Your task to perform on an android device: Go to network settings Image 0: 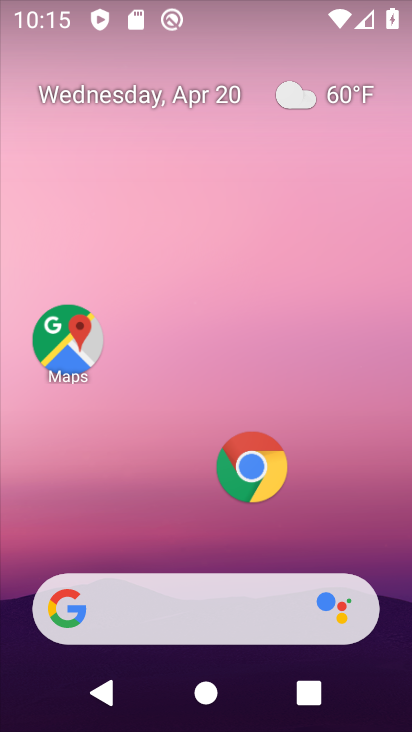
Step 0: drag from (346, 534) to (344, 38)
Your task to perform on an android device: Go to network settings Image 1: 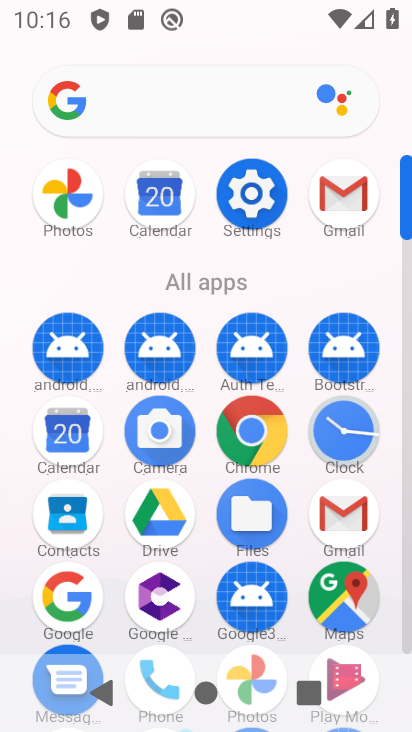
Step 1: click (253, 192)
Your task to perform on an android device: Go to network settings Image 2: 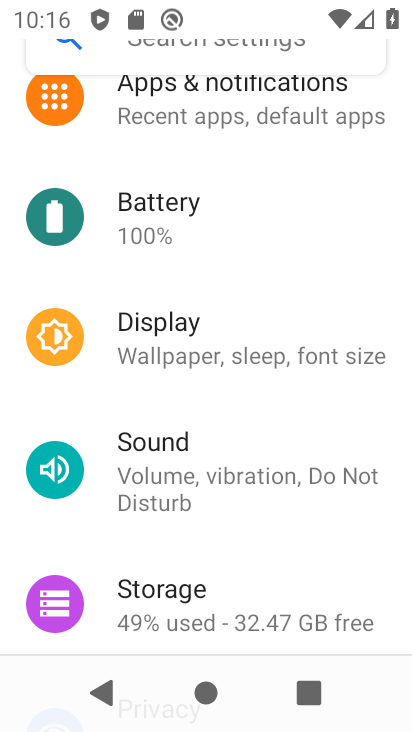
Step 2: drag from (153, 263) to (195, 357)
Your task to perform on an android device: Go to network settings Image 3: 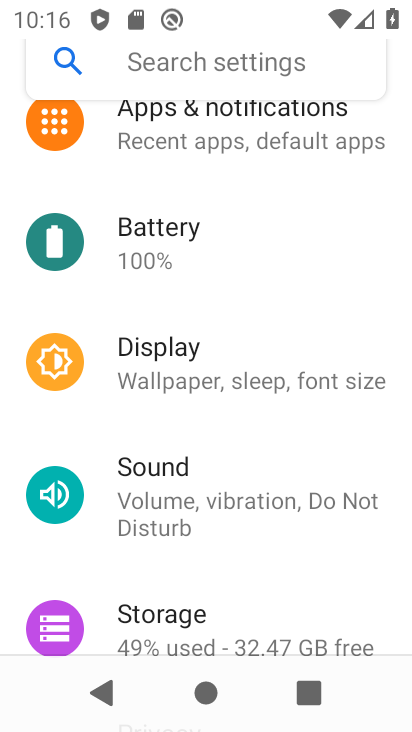
Step 3: drag from (204, 310) to (221, 407)
Your task to perform on an android device: Go to network settings Image 4: 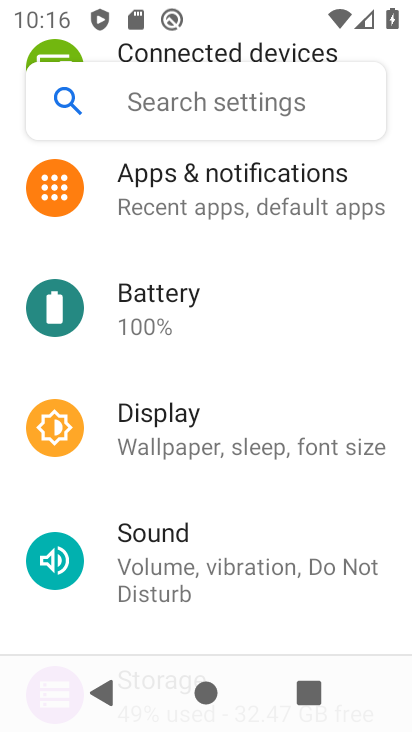
Step 4: drag from (204, 333) to (223, 431)
Your task to perform on an android device: Go to network settings Image 5: 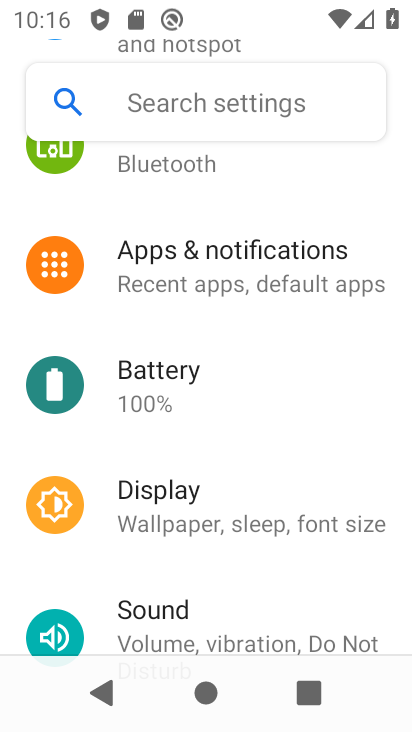
Step 5: drag from (207, 335) to (235, 440)
Your task to perform on an android device: Go to network settings Image 6: 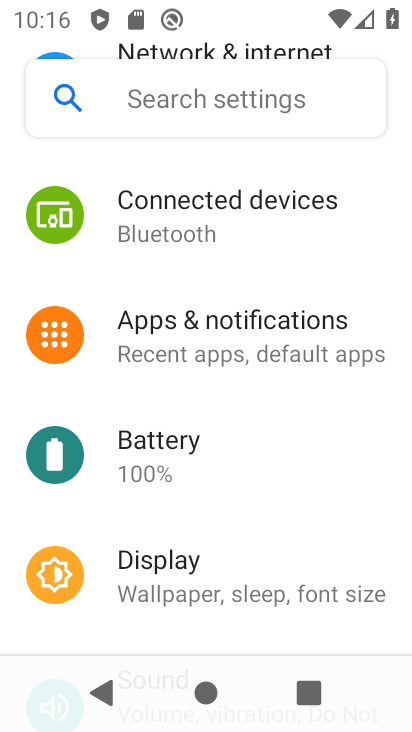
Step 6: drag from (234, 372) to (243, 468)
Your task to perform on an android device: Go to network settings Image 7: 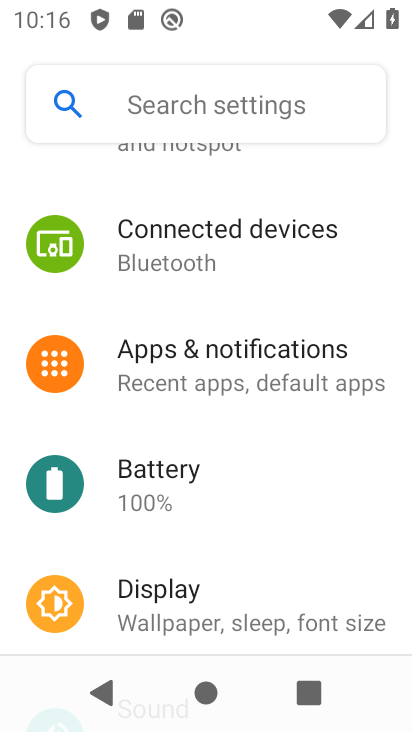
Step 7: drag from (242, 369) to (265, 444)
Your task to perform on an android device: Go to network settings Image 8: 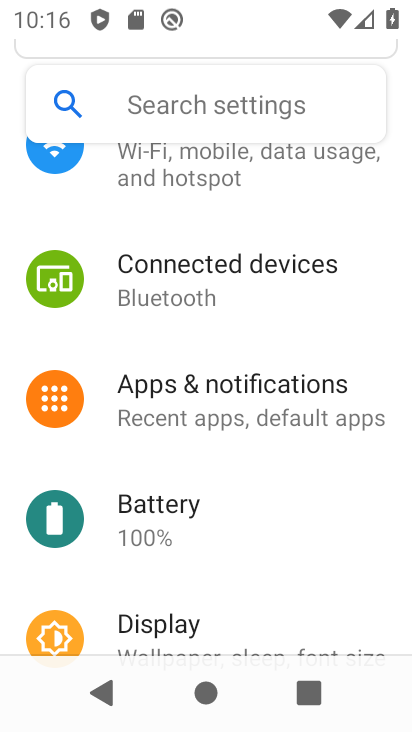
Step 8: drag from (255, 373) to (261, 442)
Your task to perform on an android device: Go to network settings Image 9: 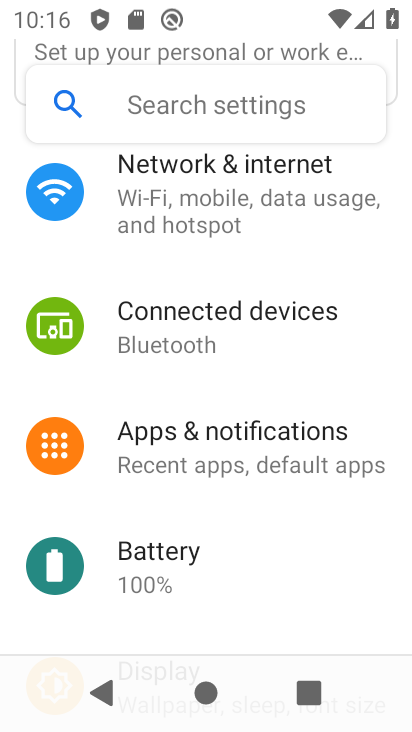
Step 9: click (212, 245)
Your task to perform on an android device: Go to network settings Image 10: 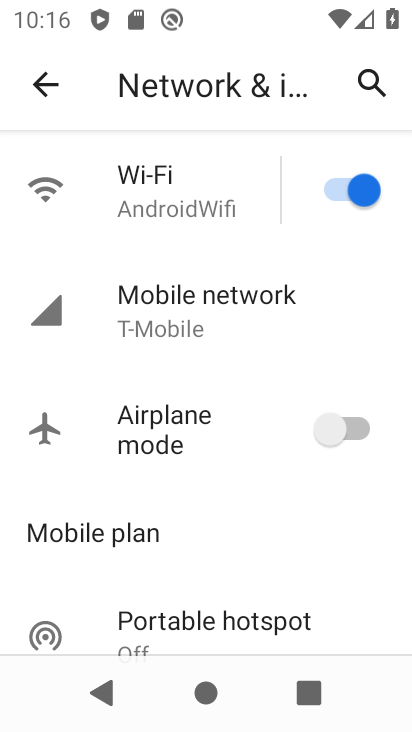
Step 10: task complete